Your task to perform on an android device: change keyboard looks Image 0: 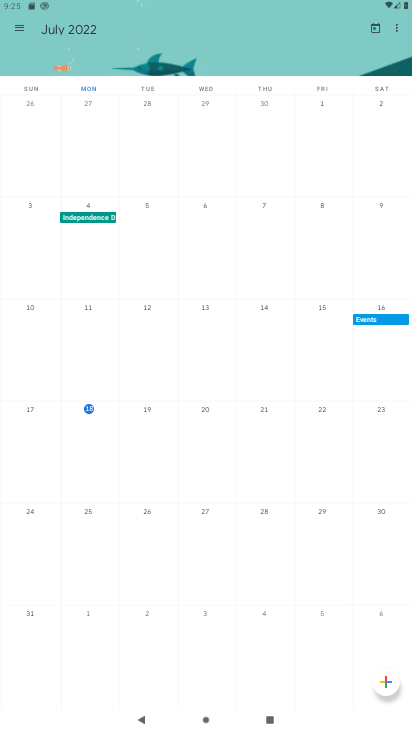
Step 0: press home button
Your task to perform on an android device: change keyboard looks Image 1: 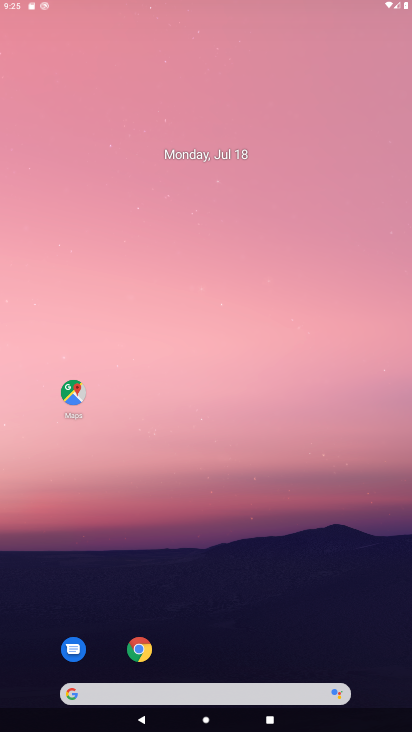
Step 1: drag from (272, 577) to (273, 8)
Your task to perform on an android device: change keyboard looks Image 2: 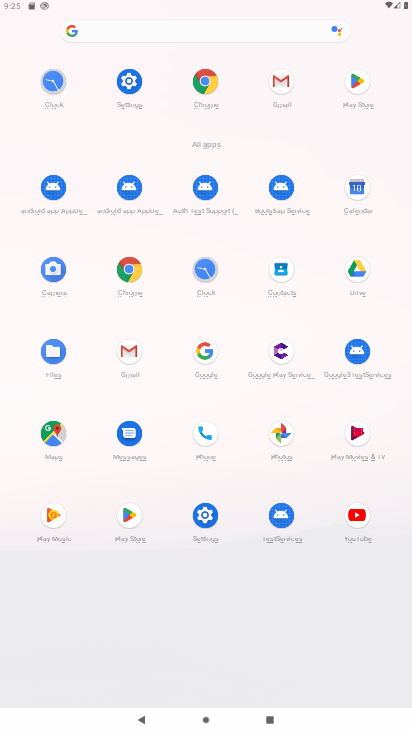
Step 2: click (127, 84)
Your task to perform on an android device: change keyboard looks Image 3: 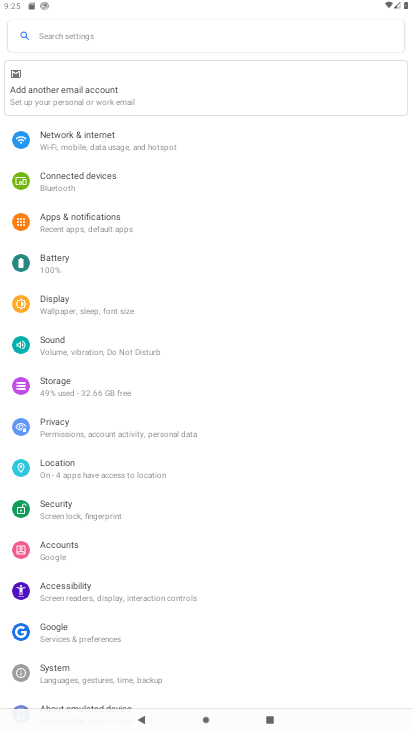
Step 3: drag from (184, 597) to (186, 108)
Your task to perform on an android device: change keyboard looks Image 4: 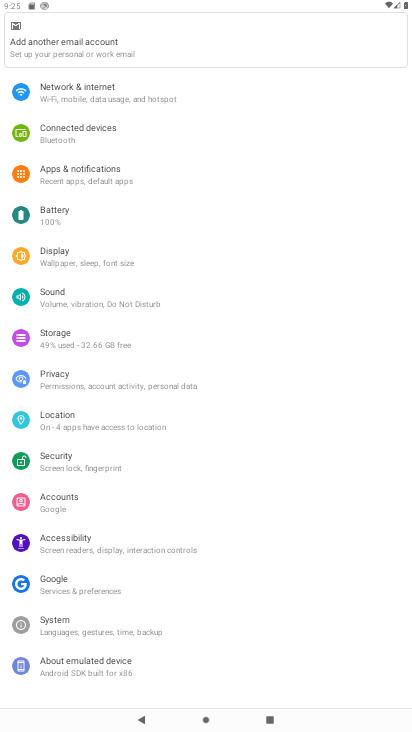
Step 4: click (95, 626)
Your task to perform on an android device: change keyboard looks Image 5: 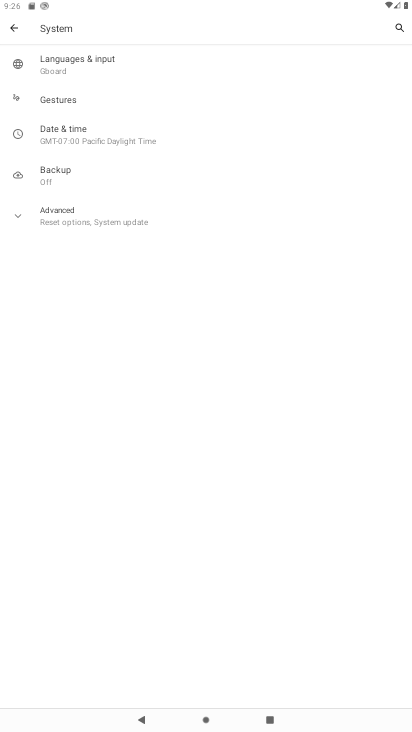
Step 5: click (77, 70)
Your task to perform on an android device: change keyboard looks Image 6: 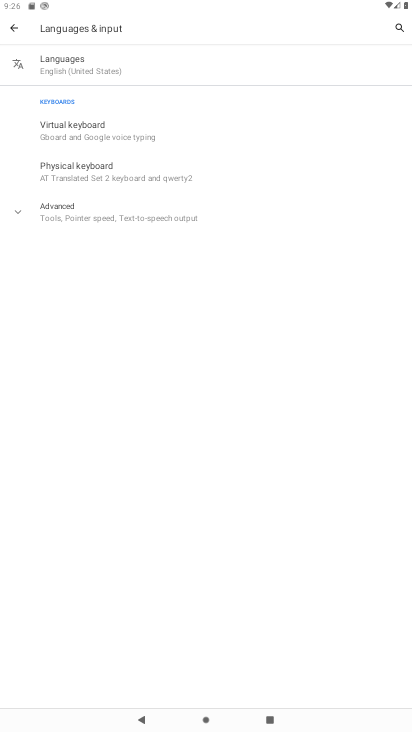
Step 6: click (84, 125)
Your task to perform on an android device: change keyboard looks Image 7: 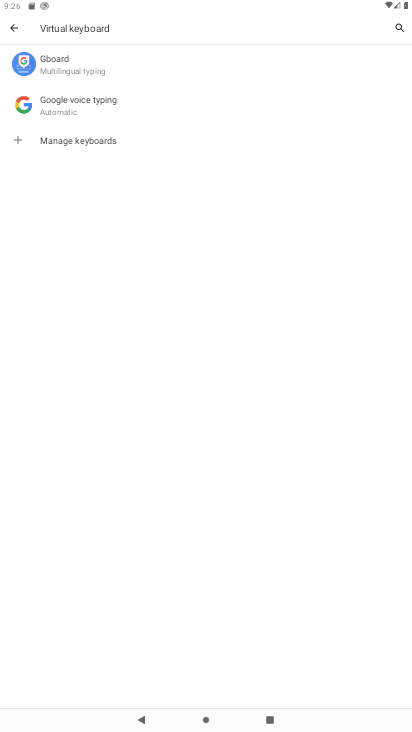
Step 7: click (72, 63)
Your task to perform on an android device: change keyboard looks Image 8: 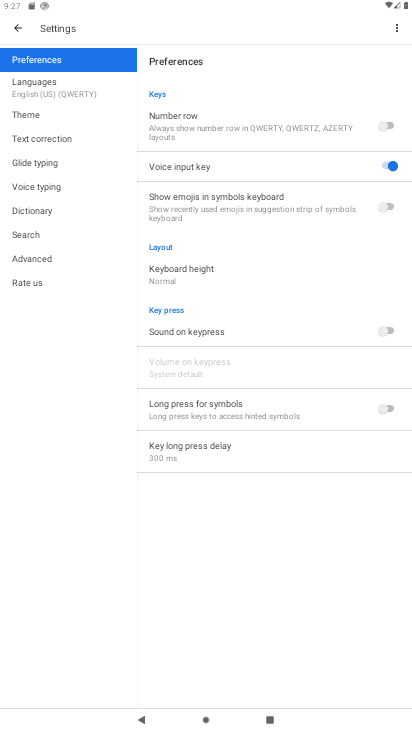
Step 8: click (41, 115)
Your task to perform on an android device: change keyboard looks Image 9: 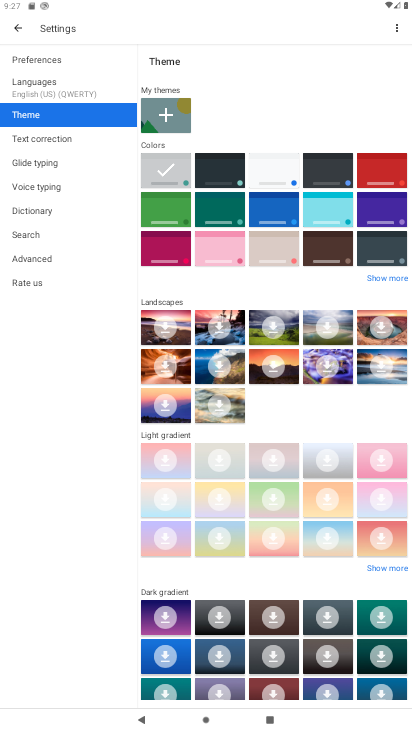
Step 9: click (372, 179)
Your task to perform on an android device: change keyboard looks Image 10: 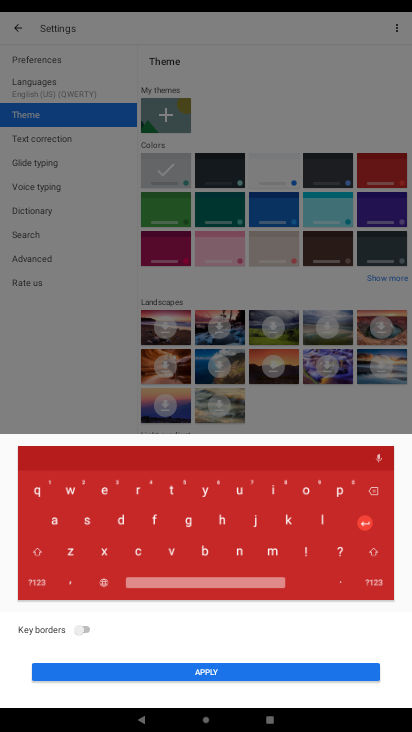
Step 10: click (196, 674)
Your task to perform on an android device: change keyboard looks Image 11: 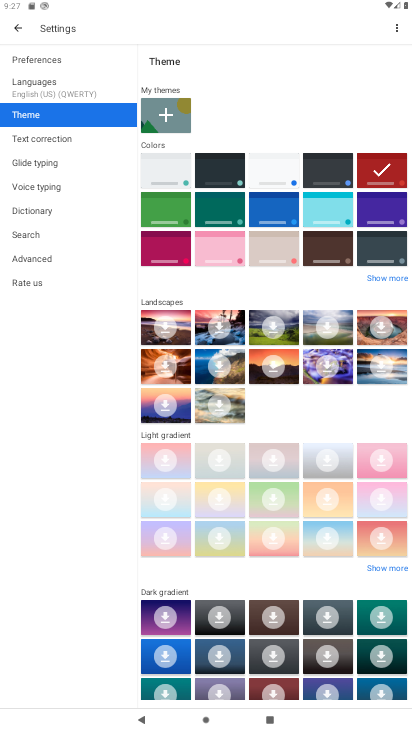
Step 11: task complete